Your task to perform on an android device: Go to Amazon Image 0: 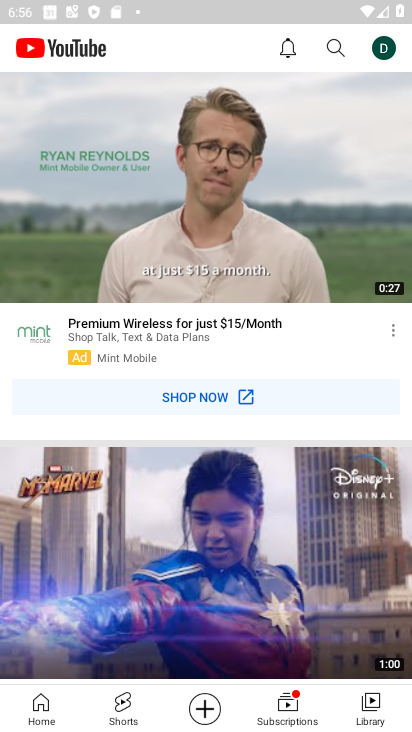
Step 0: press home button
Your task to perform on an android device: Go to Amazon Image 1: 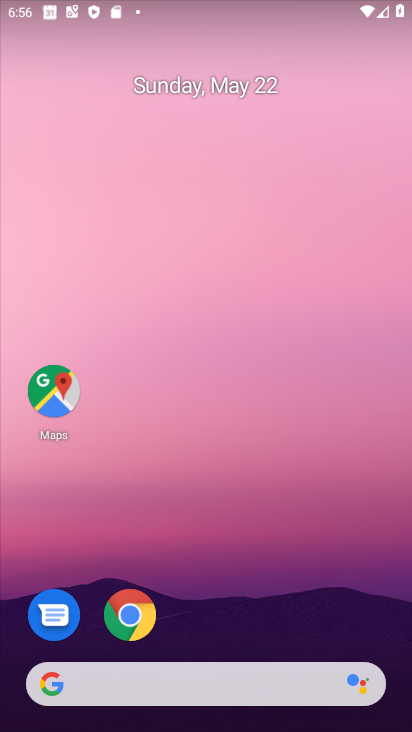
Step 1: click (123, 607)
Your task to perform on an android device: Go to Amazon Image 2: 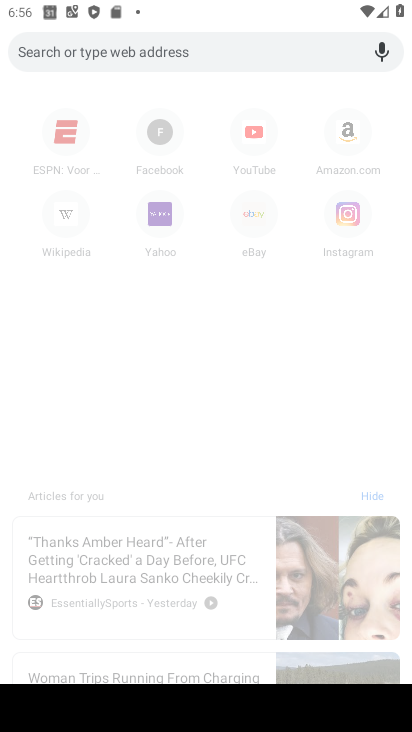
Step 2: click (344, 134)
Your task to perform on an android device: Go to Amazon Image 3: 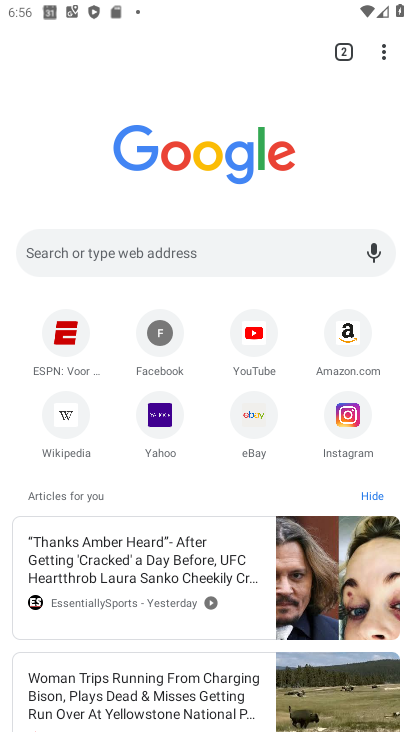
Step 3: click (347, 330)
Your task to perform on an android device: Go to Amazon Image 4: 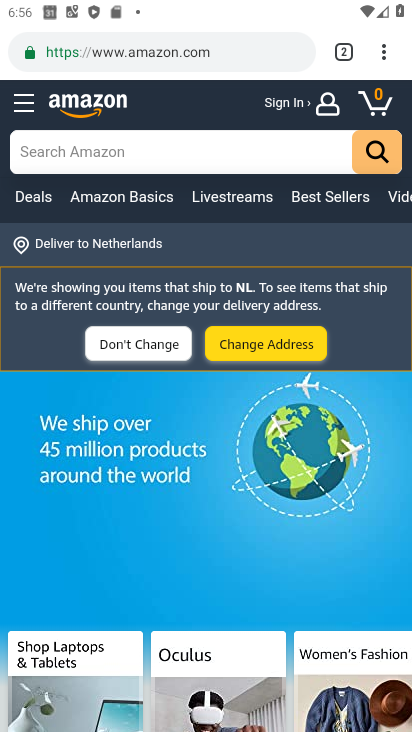
Step 4: task complete